Your task to perform on an android device: turn on improve location accuracy Image 0: 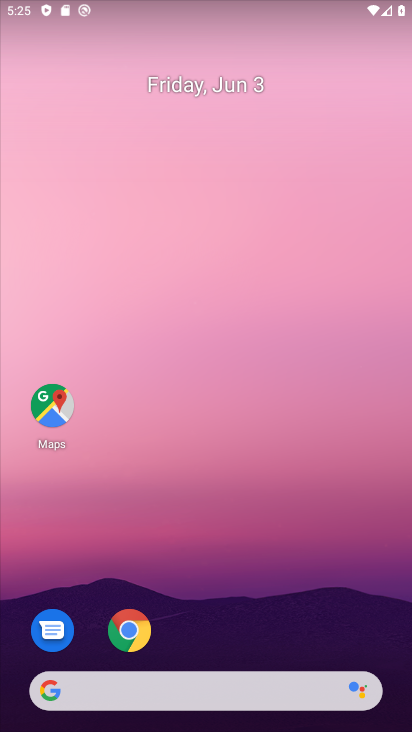
Step 0: drag from (191, 644) to (266, 47)
Your task to perform on an android device: turn on improve location accuracy Image 1: 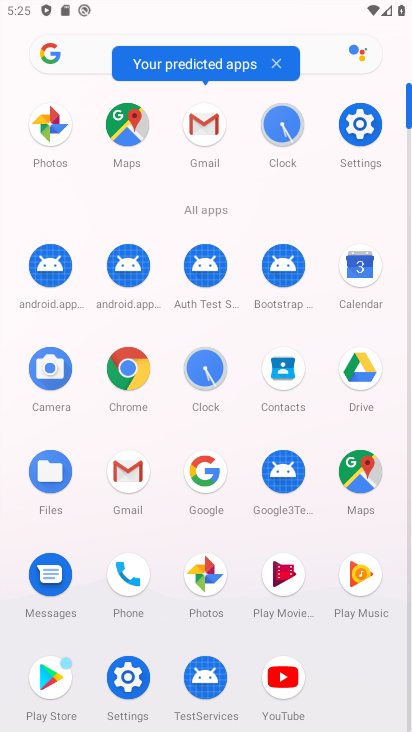
Step 1: click (338, 127)
Your task to perform on an android device: turn on improve location accuracy Image 2: 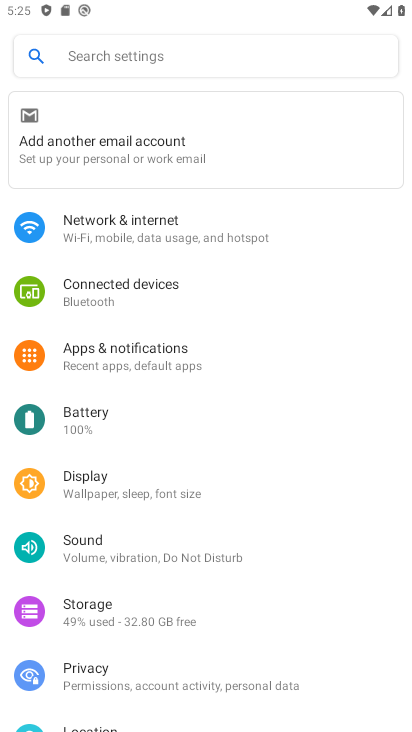
Step 2: drag from (167, 709) to (225, 254)
Your task to perform on an android device: turn on improve location accuracy Image 3: 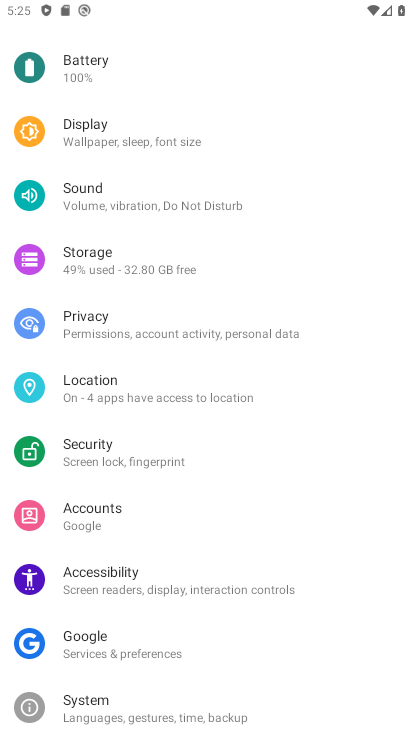
Step 3: click (84, 394)
Your task to perform on an android device: turn on improve location accuracy Image 4: 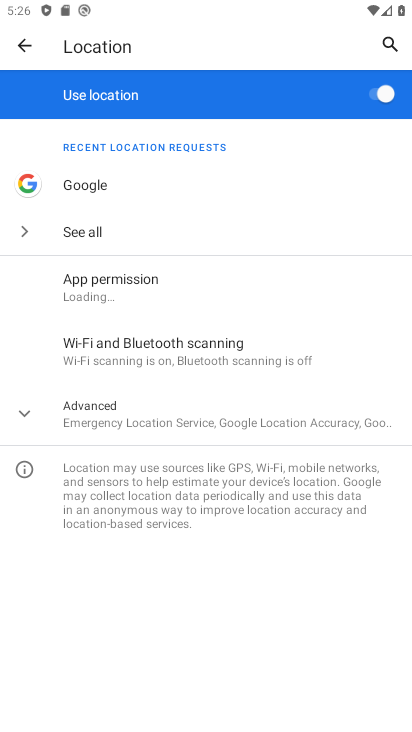
Step 4: click (99, 411)
Your task to perform on an android device: turn on improve location accuracy Image 5: 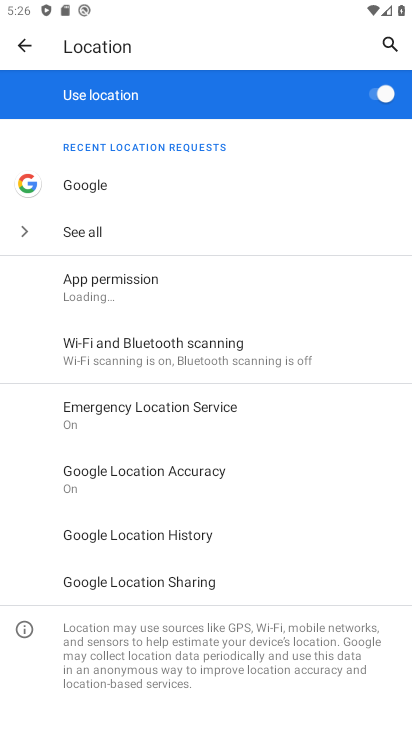
Step 5: click (94, 479)
Your task to perform on an android device: turn on improve location accuracy Image 6: 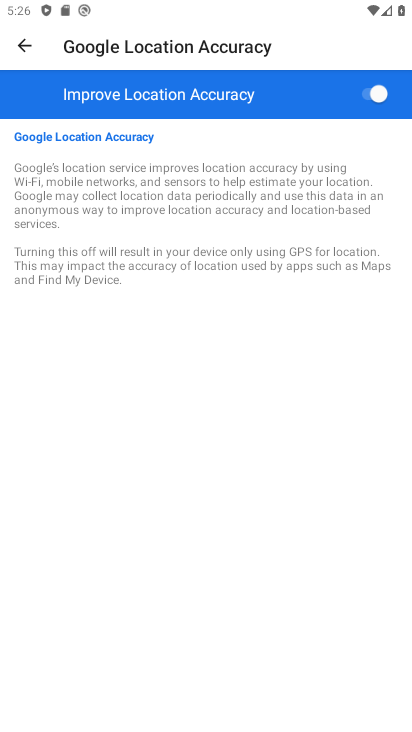
Step 6: task complete